Your task to perform on an android device: delete the emails in spam in the gmail app Image 0: 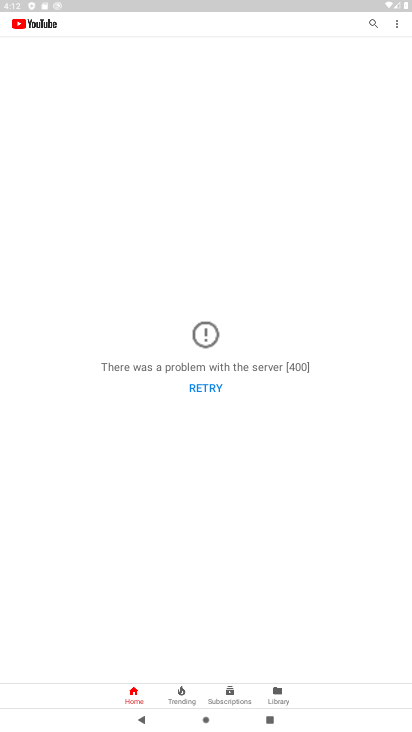
Step 0: press home button
Your task to perform on an android device: delete the emails in spam in the gmail app Image 1: 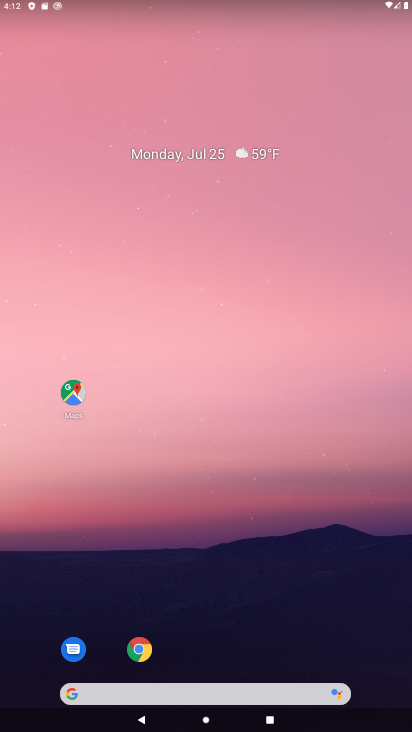
Step 1: click (109, 104)
Your task to perform on an android device: delete the emails in spam in the gmail app Image 2: 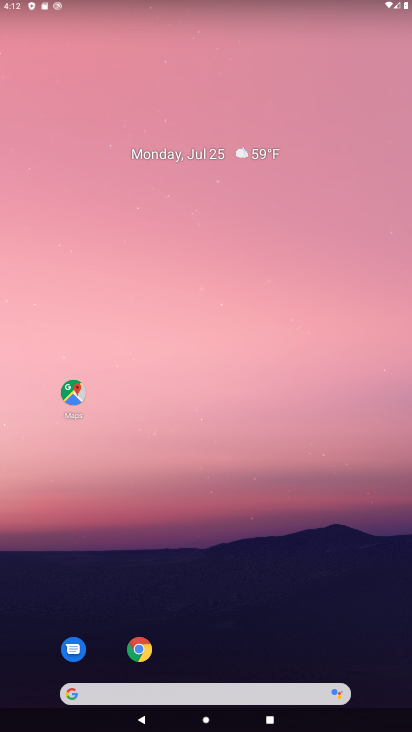
Step 2: drag from (316, 597) to (193, 76)
Your task to perform on an android device: delete the emails in spam in the gmail app Image 3: 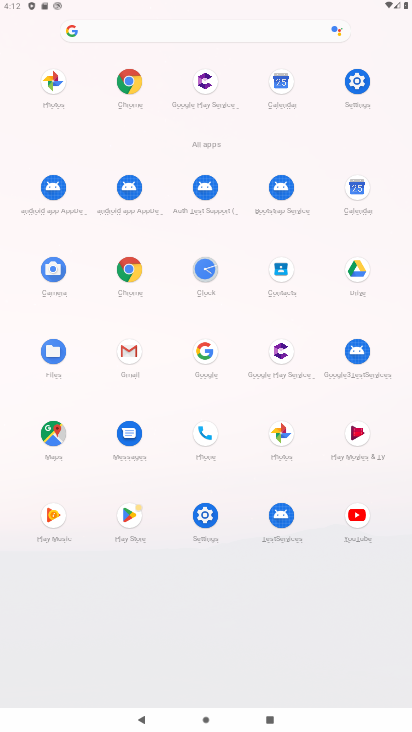
Step 3: click (116, 356)
Your task to perform on an android device: delete the emails in spam in the gmail app Image 4: 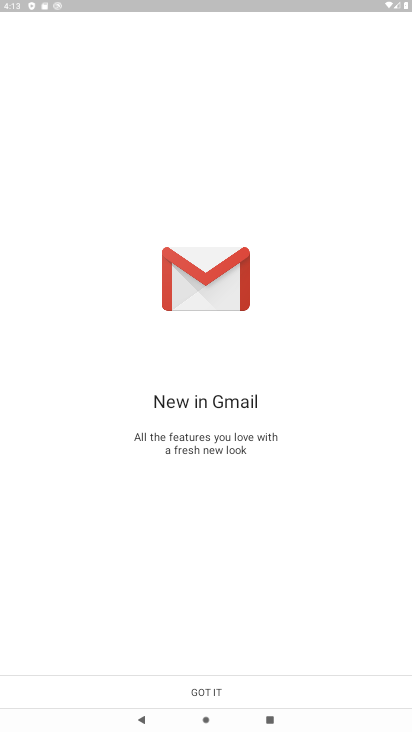
Step 4: click (223, 696)
Your task to perform on an android device: delete the emails in spam in the gmail app Image 5: 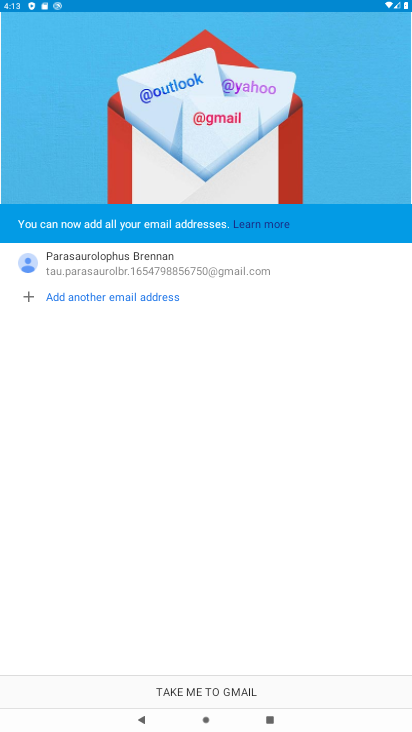
Step 5: click (220, 694)
Your task to perform on an android device: delete the emails in spam in the gmail app Image 6: 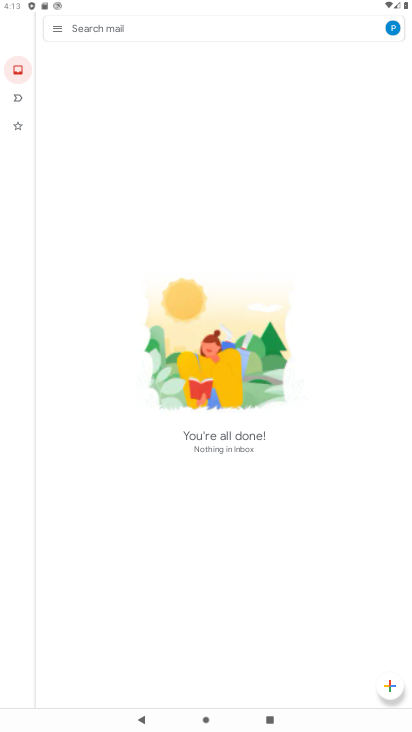
Step 6: click (47, 27)
Your task to perform on an android device: delete the emails in spam in the gmail app Image 7: 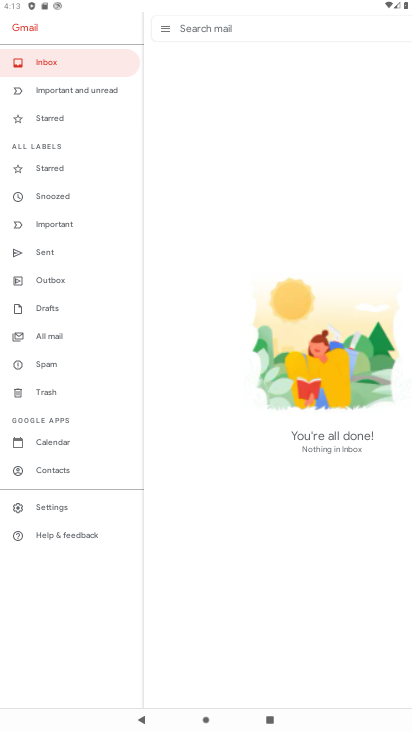
Step 7: click (68, 60)
Your task to perform on an android device: delete the emails in spam in the gmail app Image 8: 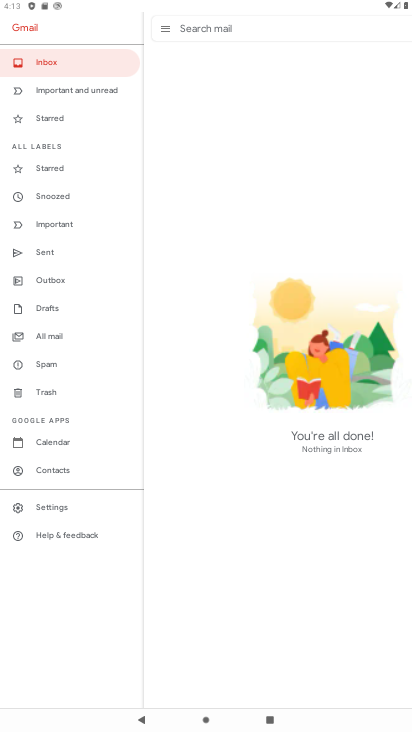
Step 8: task complete